Your task to perform on an android device: What is the news today? Image 0: 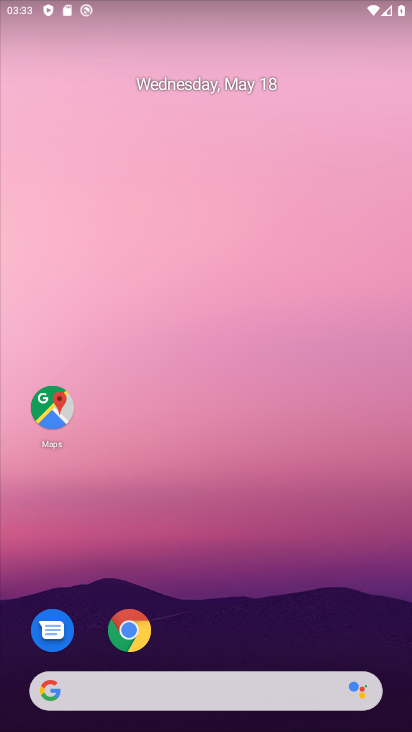
Step 0: drag from (180, 731) to (217, 314)
Your task to perform on an android device: What is the news today? Image 1: 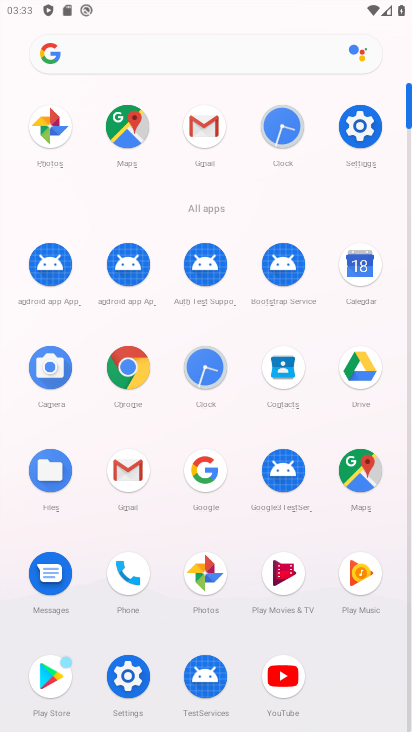
Step 1: click (204, 474)
Your task to perform on an android device: What is the news today? Image 2: 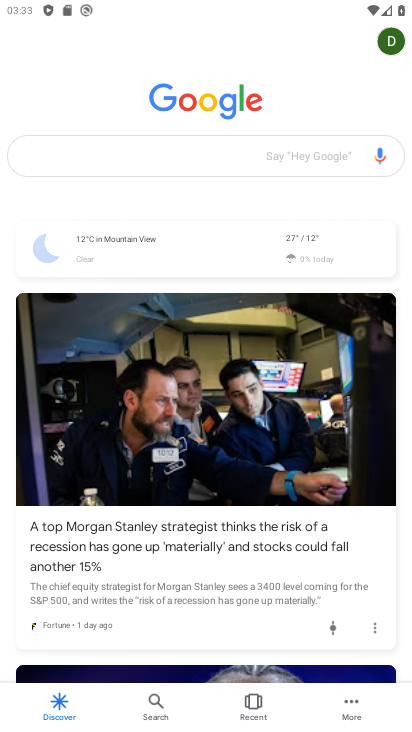
Step 2: task complete